Your task to perform on an android device: Go to Wikipedia Image 0: 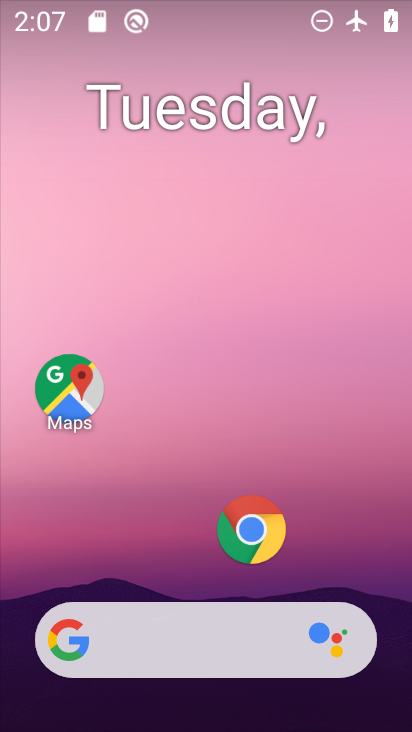
Step 0: drag from (259, 678) to (371, 46)
Your task to perform on an android device: Go to Wikipedia Image 1: 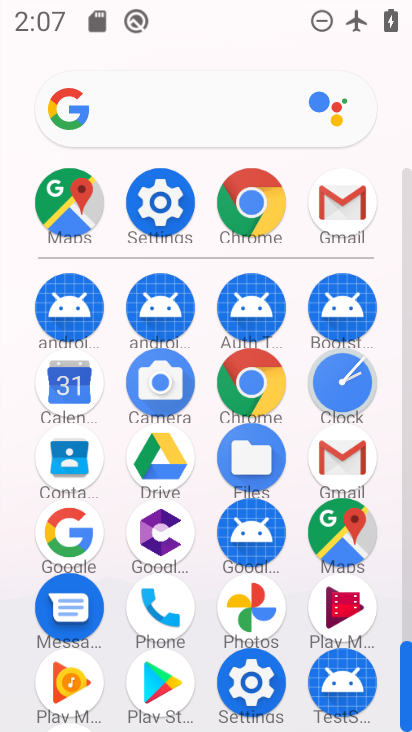
Step 1: click (256, 188)
Your task to perform on an android device: Go to Wikipedia Image 2: 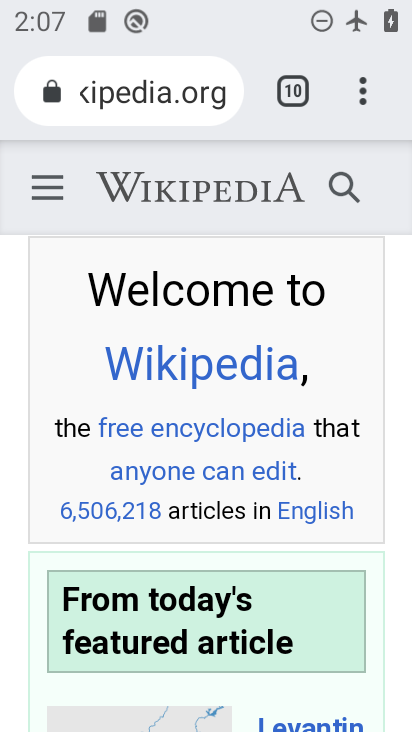
Step 2: click (346, 95)
Your task to perform on an android device: Go to Wikipedia Image 3: 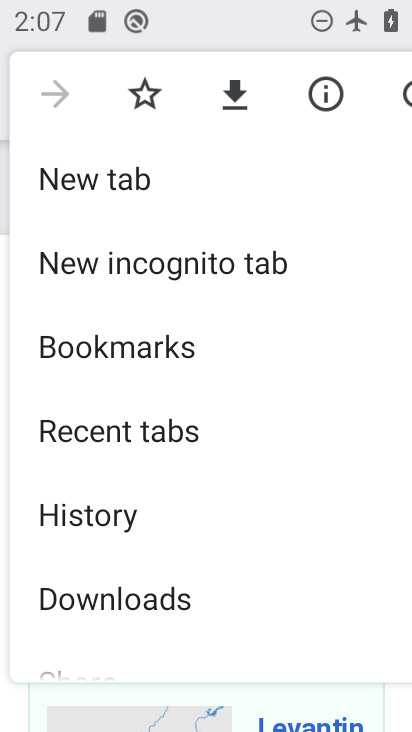
Step 3: press back button
Your task to perform on an android device: Go to Wikipedia Image 4: 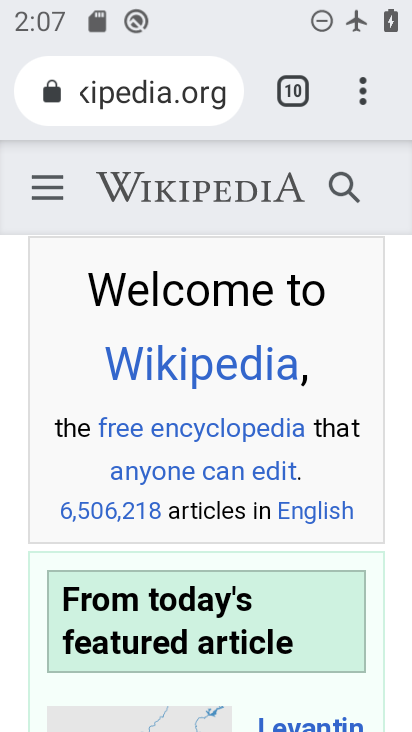
Step 4: click (151, 94)
Your task to perform on an android device: Go to Wikipedia Image 5: 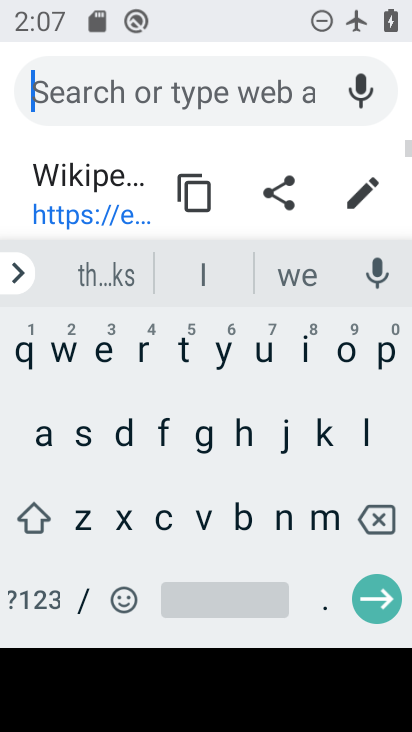
Step 5: click (98, 183)
Your task to perform on an android device: Go to Wikipedia Image 6: 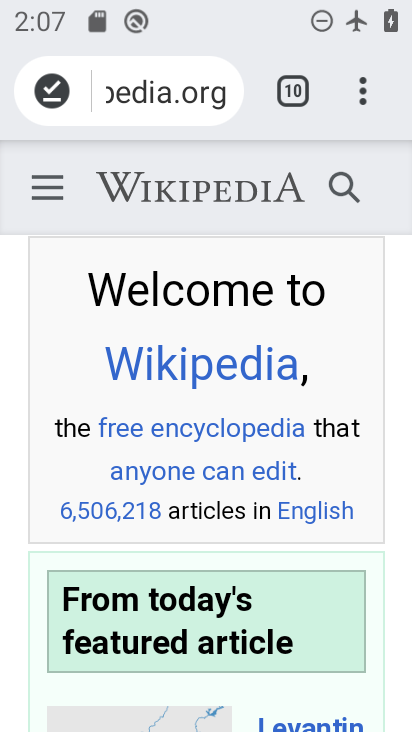
Step 6: task complete